Your task to perform on an android device: toggle wifi Image 0: 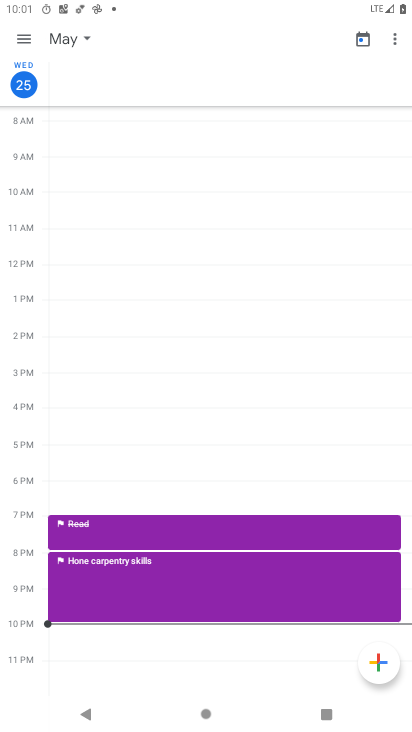
Step 0: press home button
Your task to perform on an android device: toggle wifi Image 1: 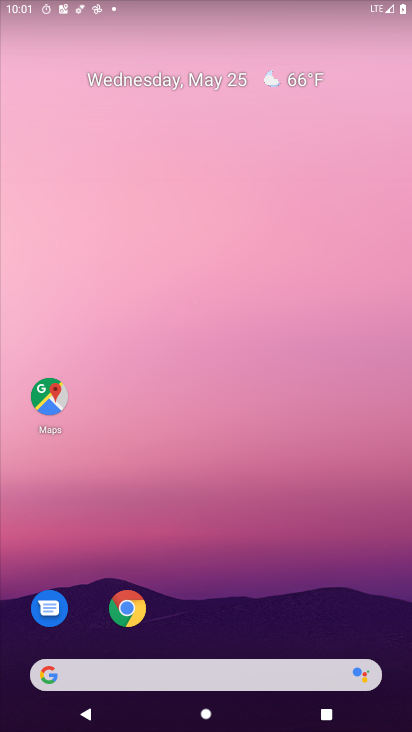
Step 1: drag from (224, 717) to (228, 182)
Your task to perform on an android device: toggle wifi Image 2: 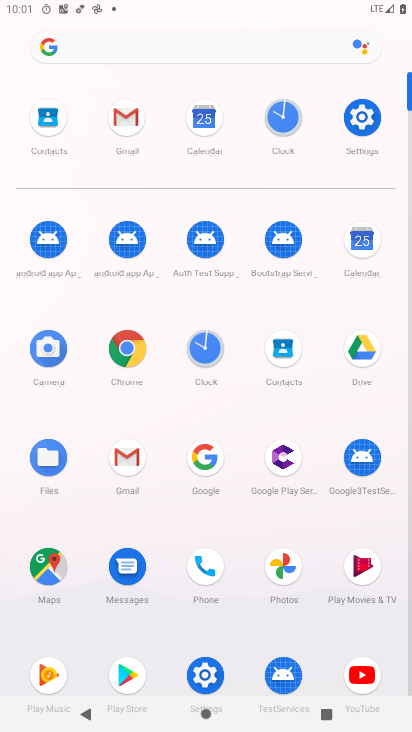
Step 2: click (366, 111)
Your task to perform on an android device: toggle wifi Image 3: 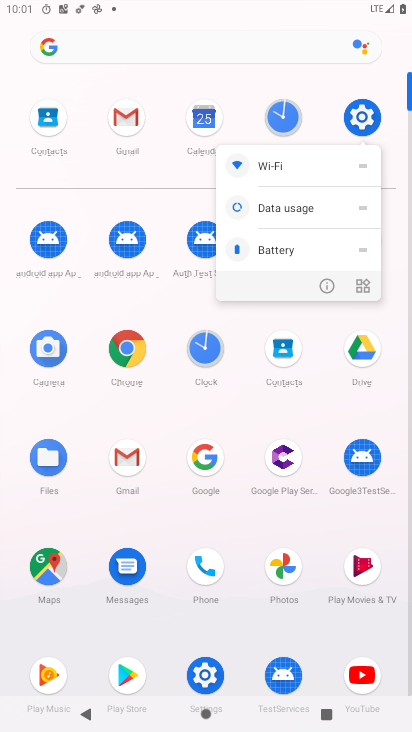
Step 3: click (364, 122)
Your task to perform on an android device: toggle wifi Image 4: 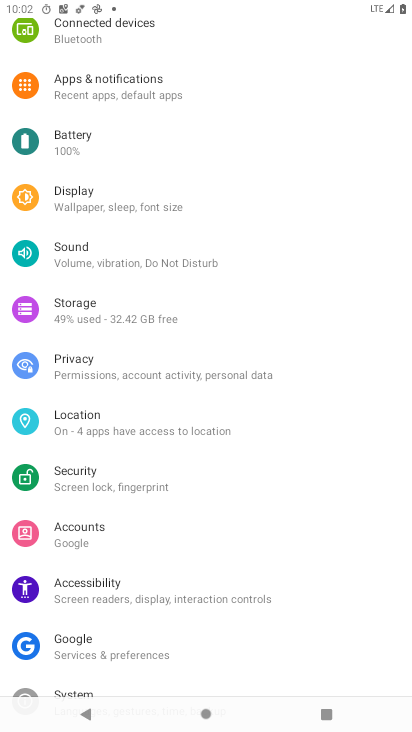
Step 4: drag from (278, 98) to (270, 713)
Your task to perform on an android device: toggle wifi Image 5: 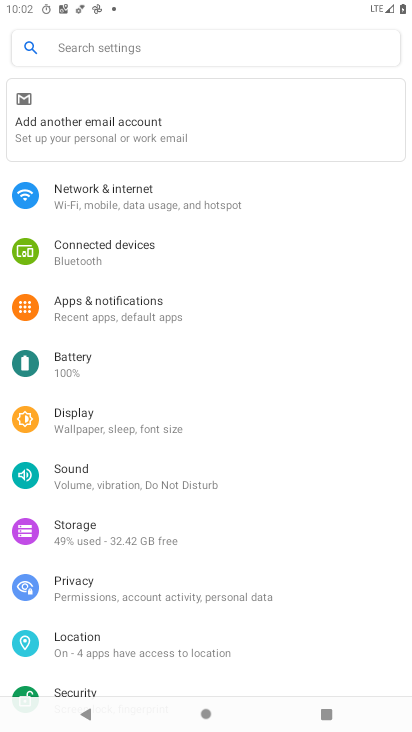
Step 5: click (73, 202)
Your task to perform on an android device: toggle wifi Image 6: 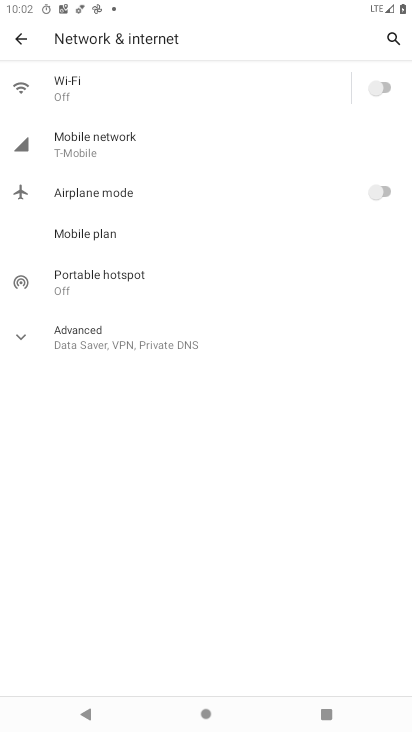
Step 6: click (386, 85)
Your task to perform on an android device: toggle wifi Image 7: 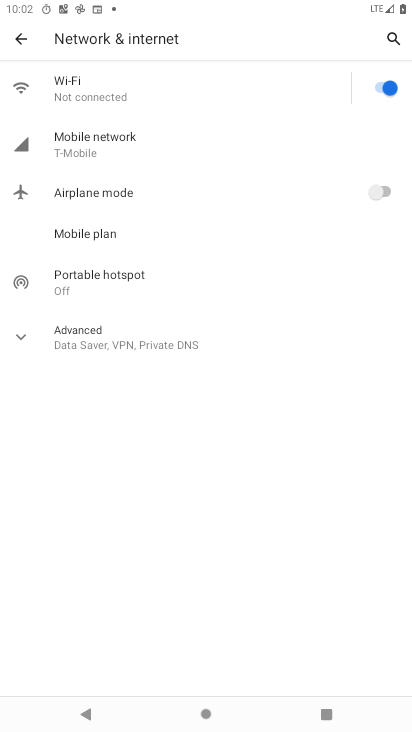
Step 7: task complete